Your task to perform on an android device: Go to privacy settings Image 0: 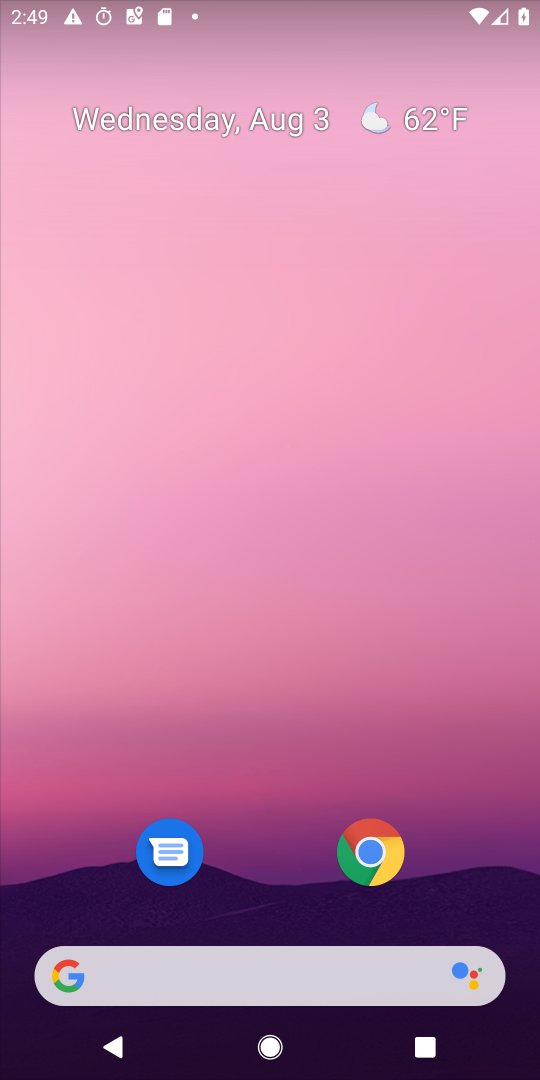
Step 0: drag from (376, 681) to (152, 51)
Your task to perform on an android device: Go to privacy settings Image 1: 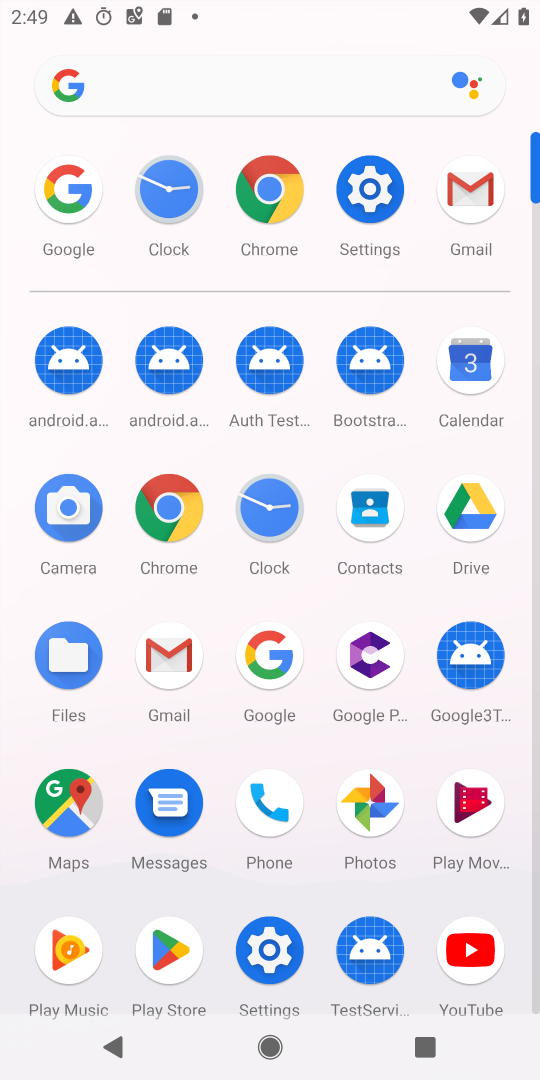
Step 1: click (372, 207)
Your task to perform on an android device: Go to privacy settings Image 2: 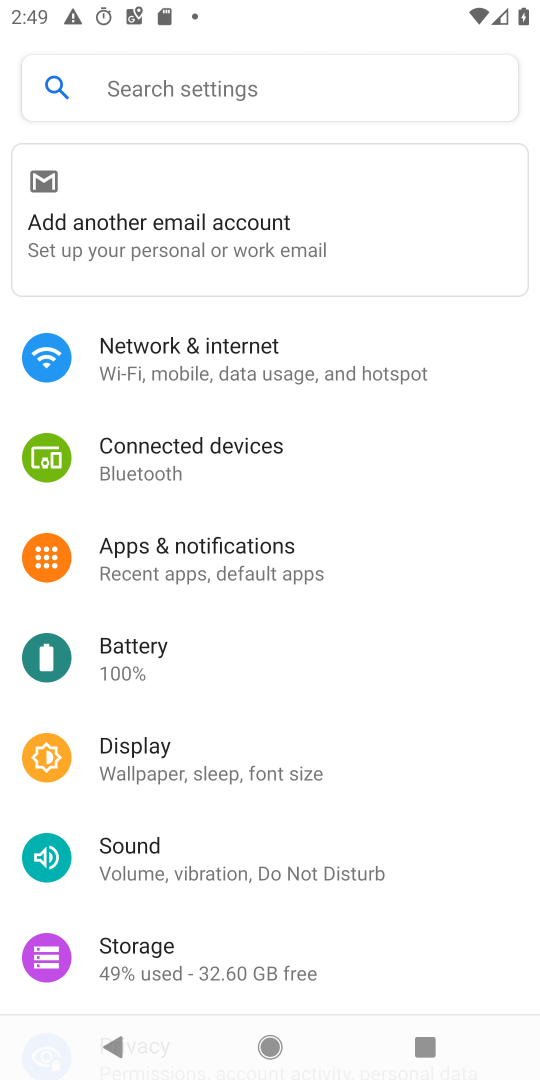
Step 2: drag from (349, 926) to (249, 285)
Your task to perform on an android device: Go to privacy settings Image 3: 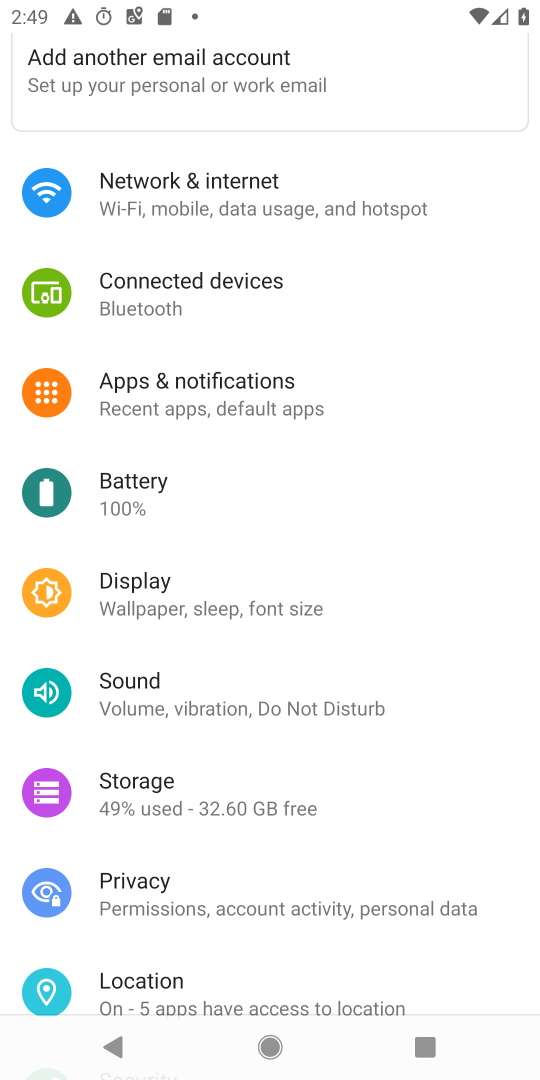
Step 3: click (126, 876)
Your task to perform on an android device: Go to privacy settings Image 4: 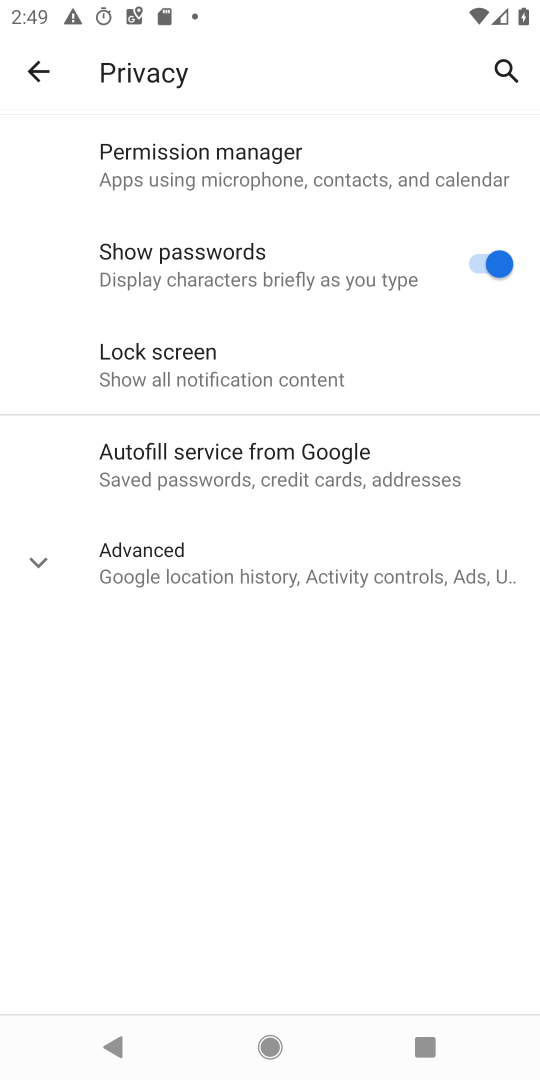
Step 4: task complete